Your task to perform on an android device: turn off airplane mode Image 0: 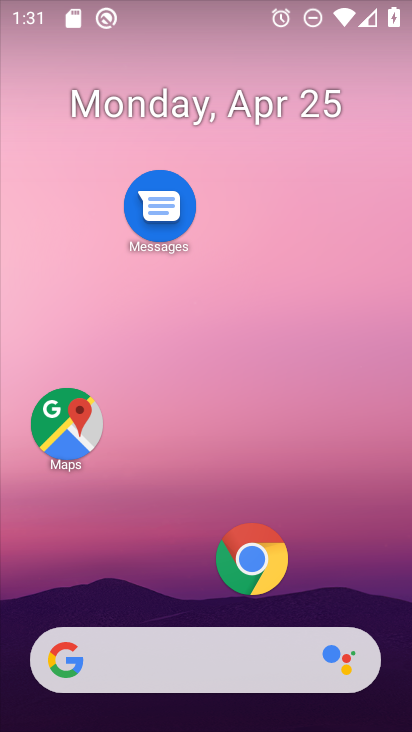
Step 0: drag from (175, 560) to (226, 155)
Your task to perform on an android device: turn off airplane mode Image 1: 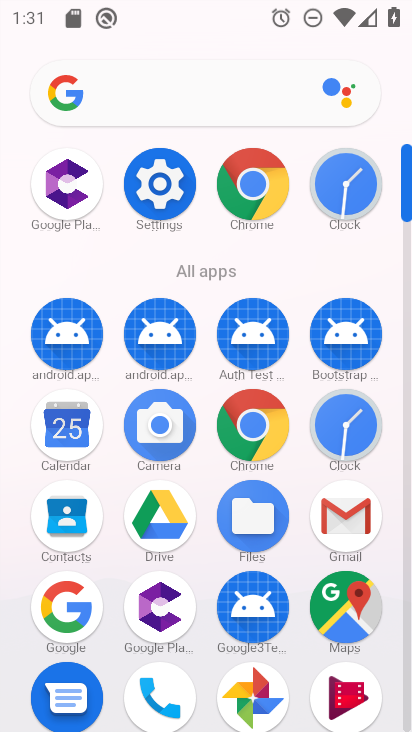
Step 1: click (156, 182)
Your task to perform on an android device: turn off airplane mode Image 2: 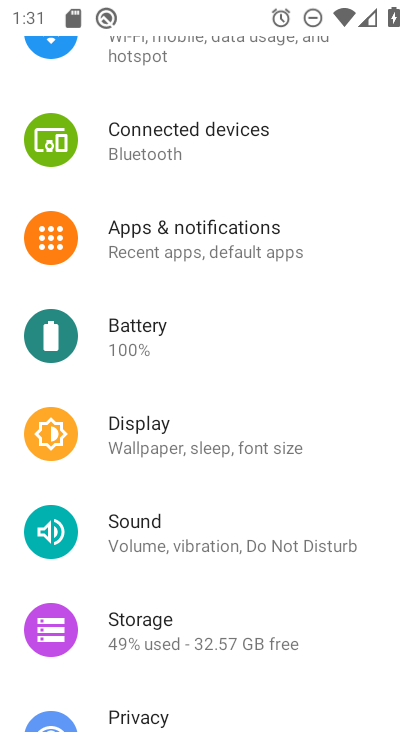
Step 2: drag from (174, 104) to (230, 564)
Your task to perform on an android device: turn off airplane mode Image 3: 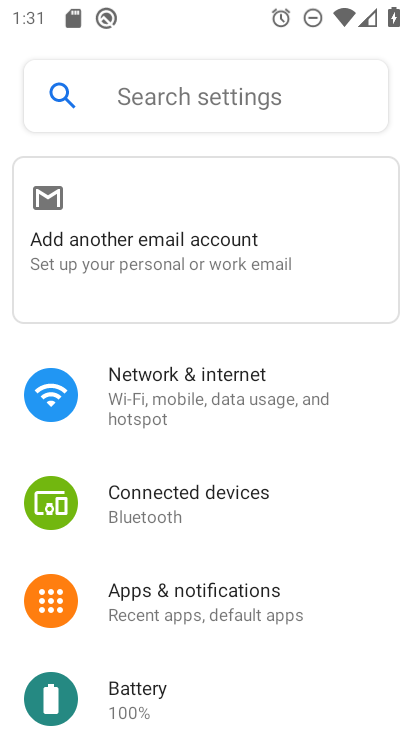
Step 3: click (188, 379)
Your task to perform on an android device: turn off airplane mode Image 4: 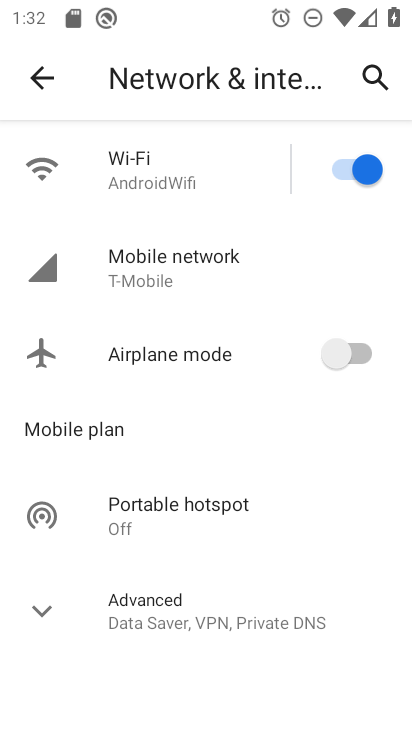
Step 4: task complete